Your task to perform on an android device: Go to Wikipedia Image 0: 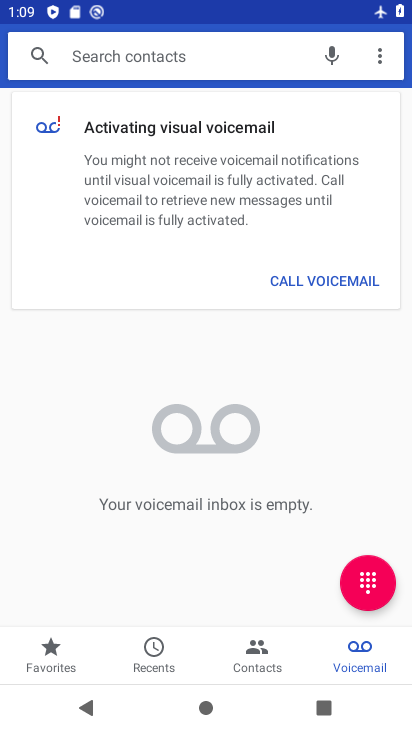
Step 0: drag from (277, 531) to (234, 130)
Your task to perform on an android device: Go to Wikipedia Image 1: 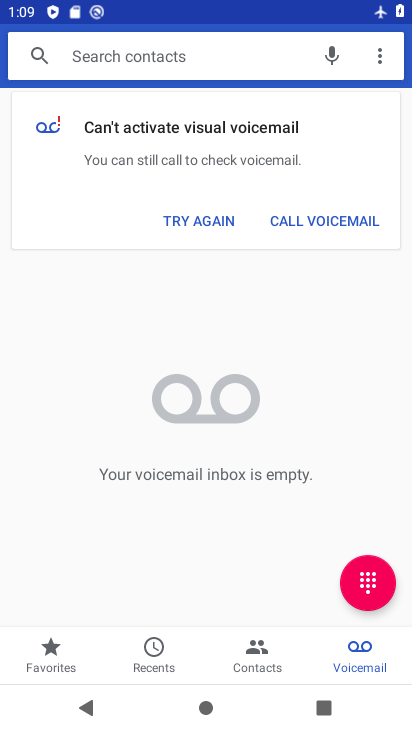
Step 1: press home button
Your task to perform on an android device: Go to Wikipedia Image 2: 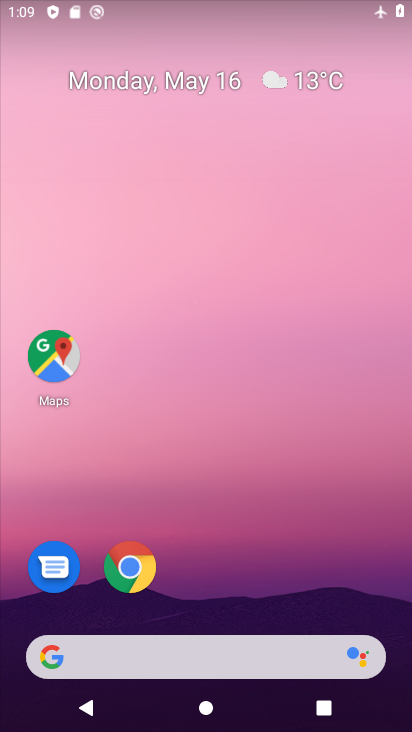
Step 2: click (132, 558)
Your task to perform on an android device: Go to Wikipedia Image 3: 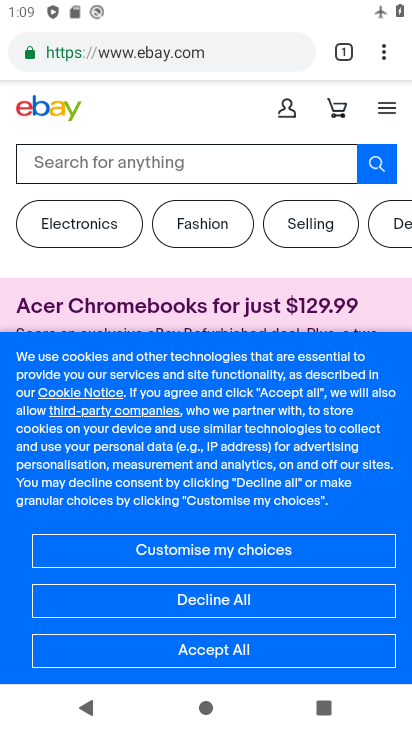
Step 3: click (383, 53)
Your task to perform on an android device: Go to Wikipedia Image 4: 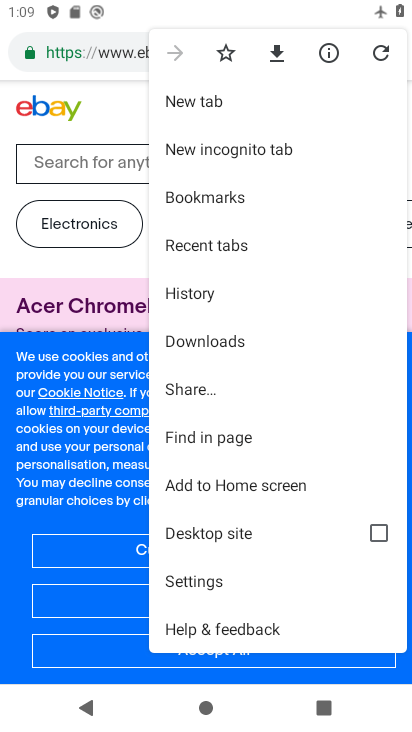
Step 4: click (193, 98)
Your task to perform on an android device: Go to Wikipedia Image 5: 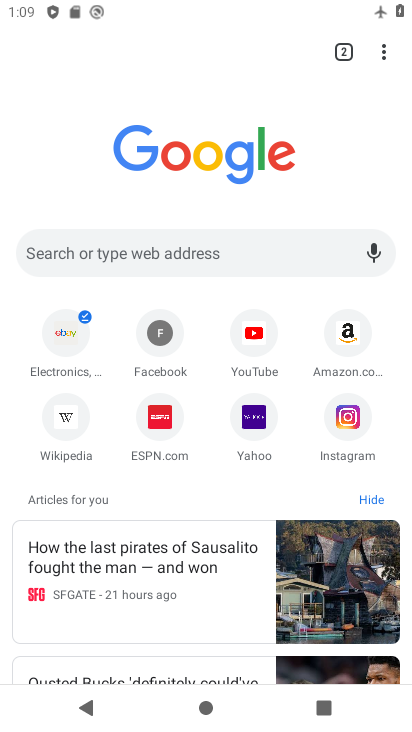
Step 5: click (64, 417)
Your task to perform on an android device: Go to Wikipedia Image 6: 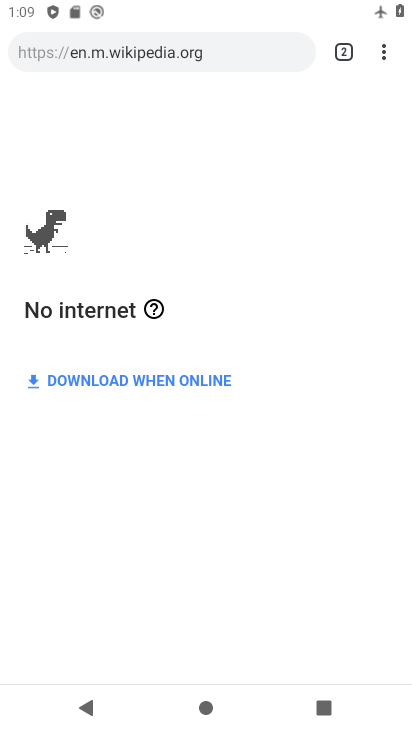
Step 6: task complete